Your task to perform on an android device: Open ESPN.com Image 0: 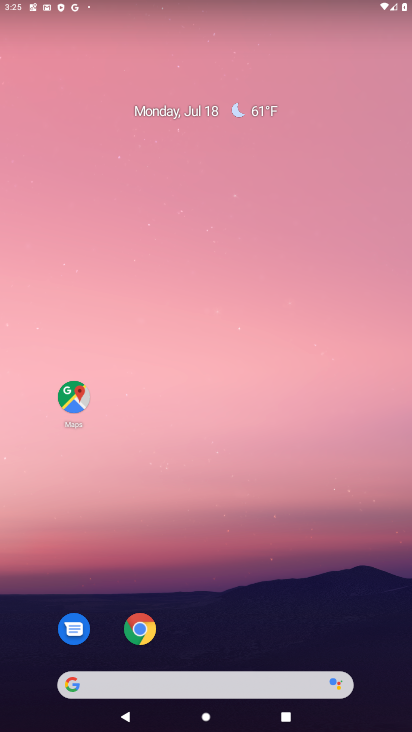
Step 0: drag from (241, 599) to (302, 146)
Your task to perform on an android device: Open ESPN.com Image 1: 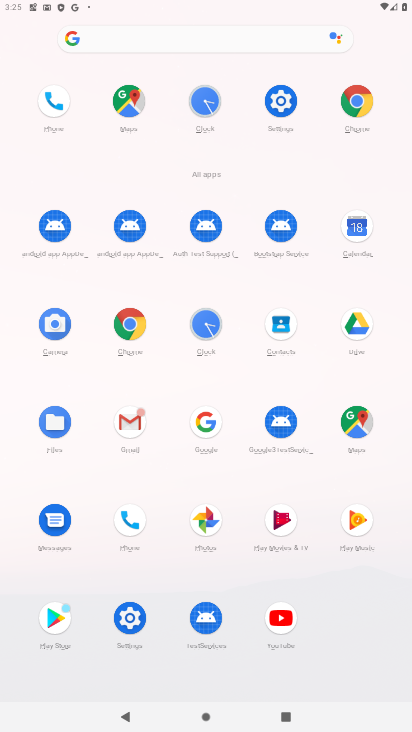
Step 1: click (349, 92)
Your task to perform on an android device: Open ESPN.com Image 2: 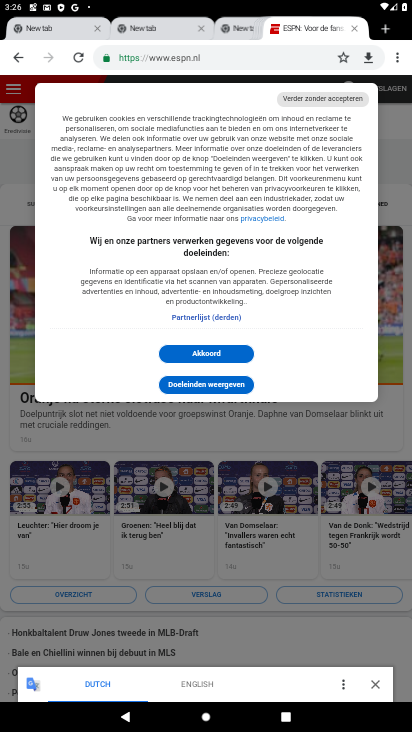
Step 2: task complete